Your task to perform on an android device: delete a single message in the gmail app Image 0: 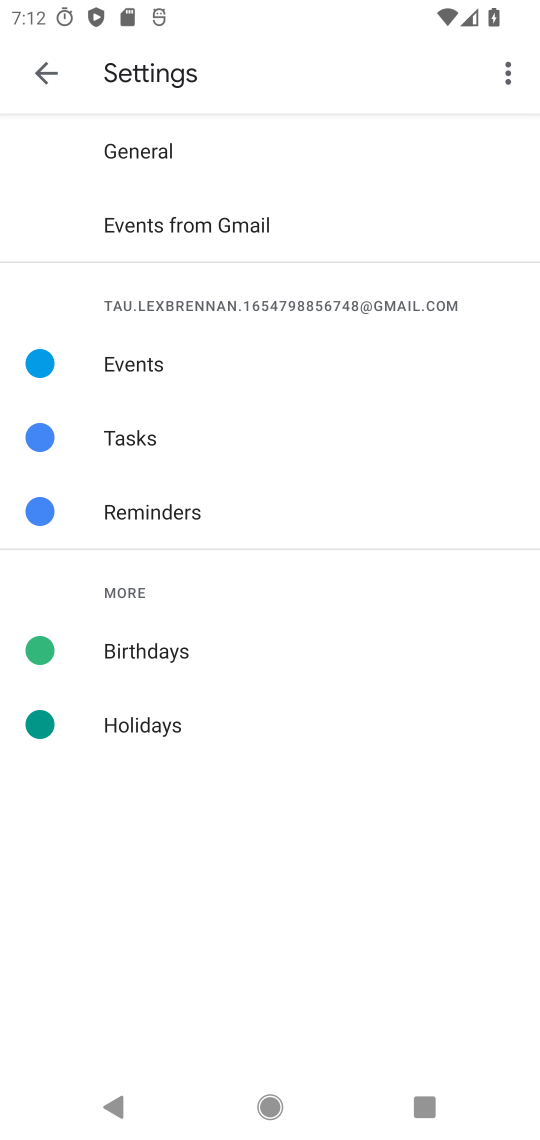
Step 0: click (46, 58)
Your task to perform on an android device: delete a single message in the gmail app Image 1: 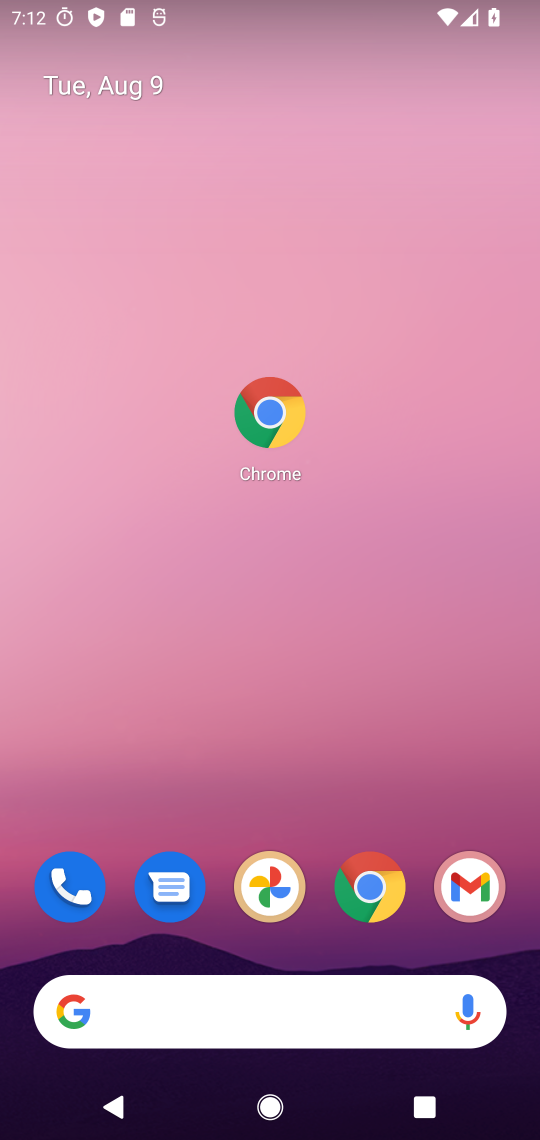
Step 1: drag from (265, 954) to (211, 560)
Your task to perform on an android device: delete a single message in the gmail app Image 2: 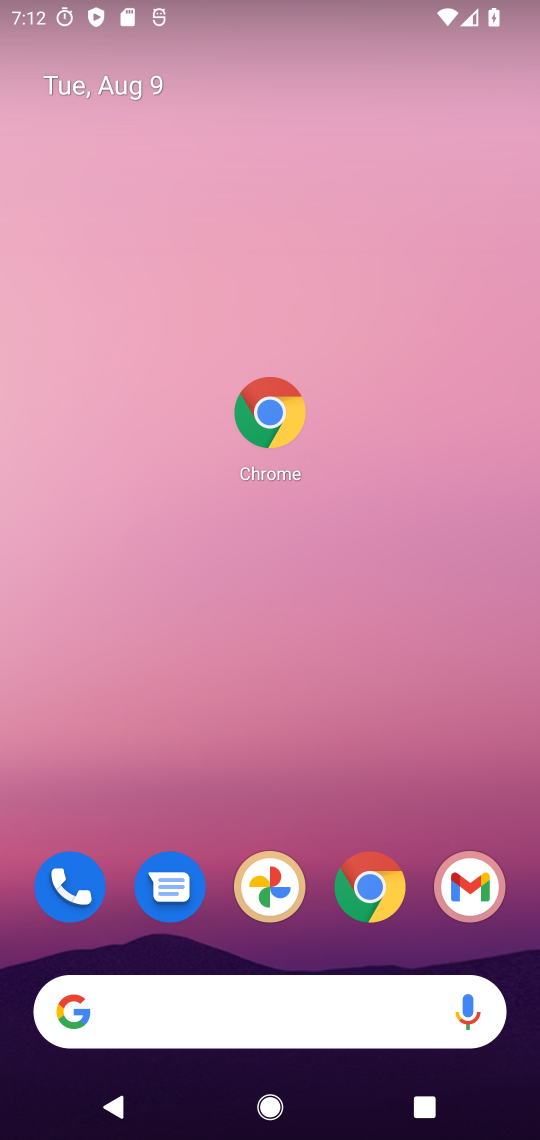
Step 2: drag from (286, 525) to (286, 433)
Your task to perform on an android device: delete a single message in the gmail app Image 3: 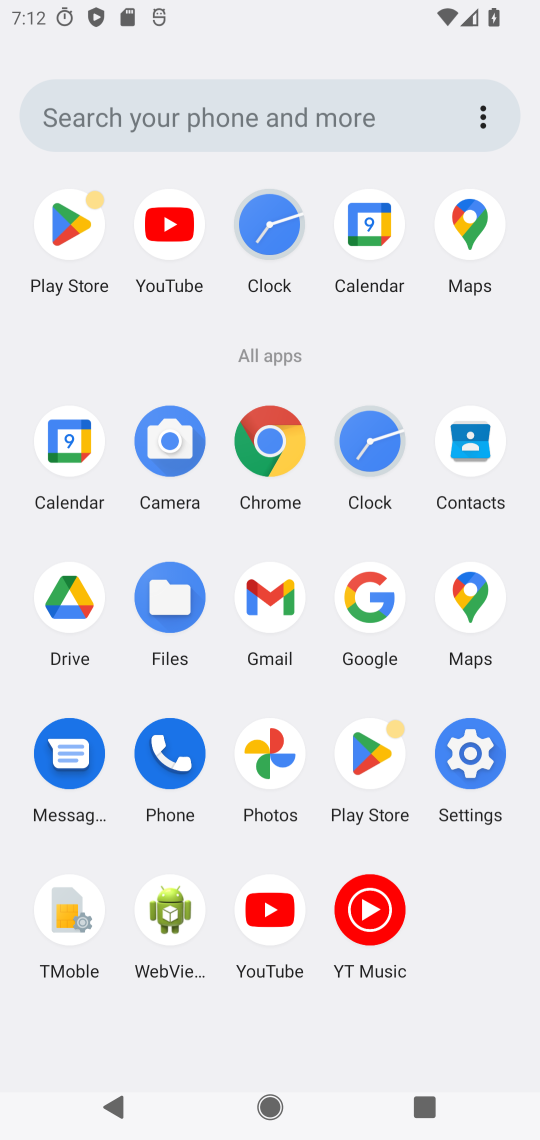
Step 3: drag from (320, 723) to (320, 361)
Your task to perform on an android device: delete a single message in the gmail app Image 4: 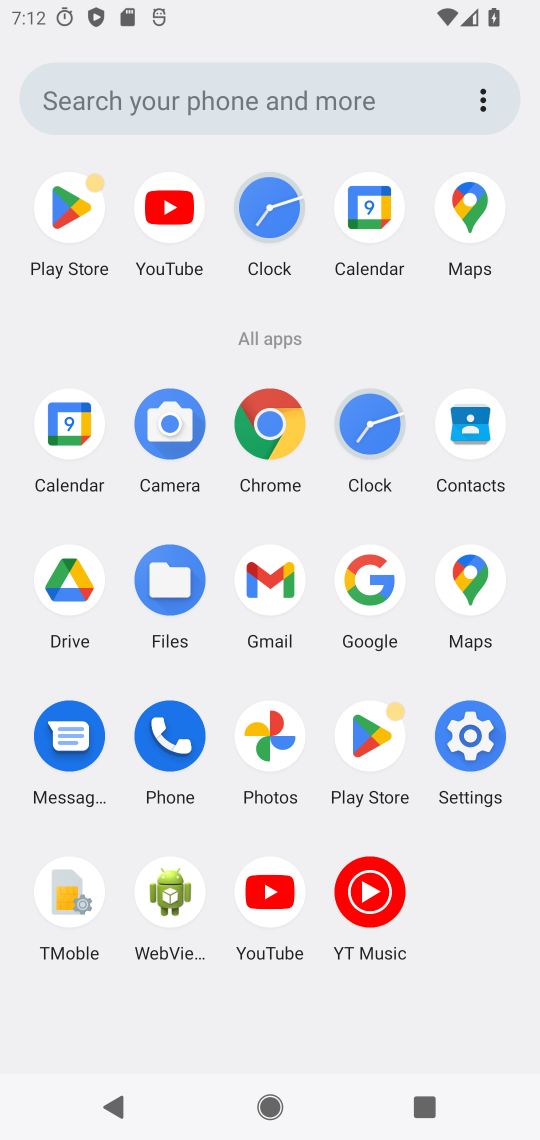
Step 4: click (273, 559)
Your task to perform on an android device: delete a single message in the gmail app Image 5: 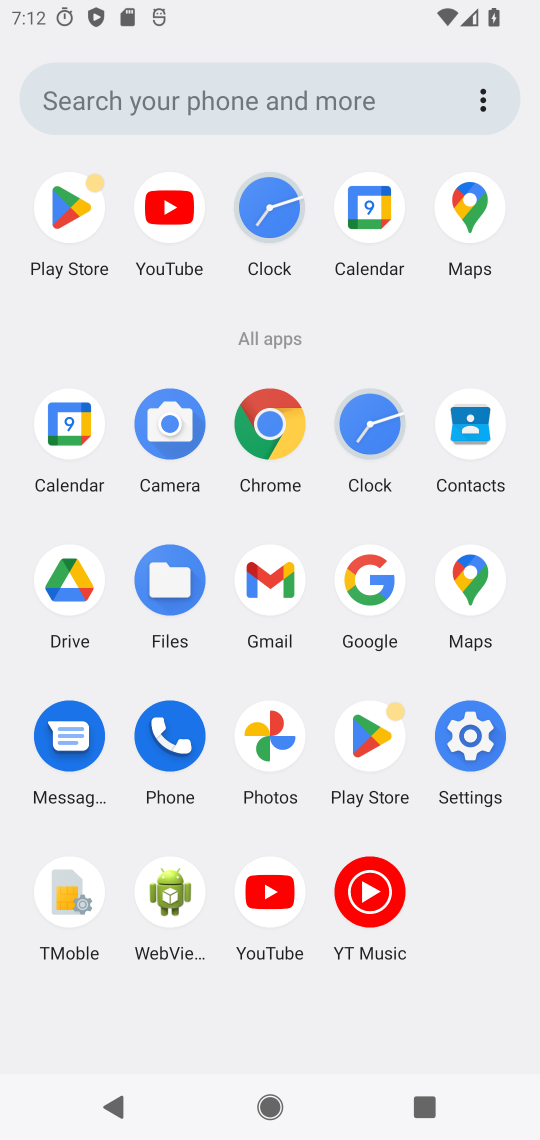
Step 5: click (271, 581)
Your task to perform on an android device: delete a single message in the gmail app Image 6: 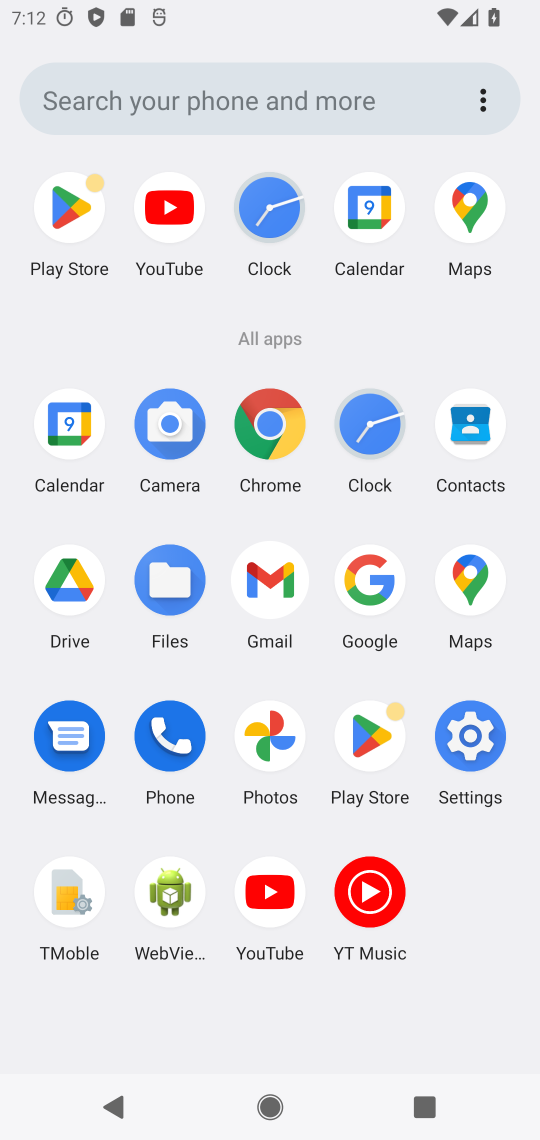
Step 6: click (273, 585)
Your task to perform on an android device: delete a single message in the gmail app Image 7: 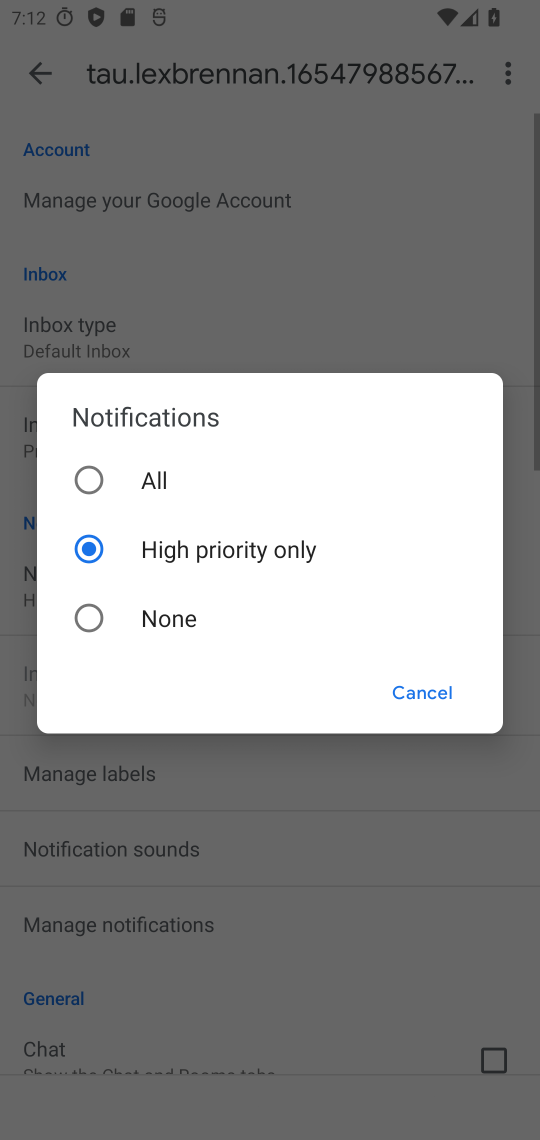
Step 7: click (273, 585)
Your task to perform on an android device: delete a single message in the gmail app Image 8: 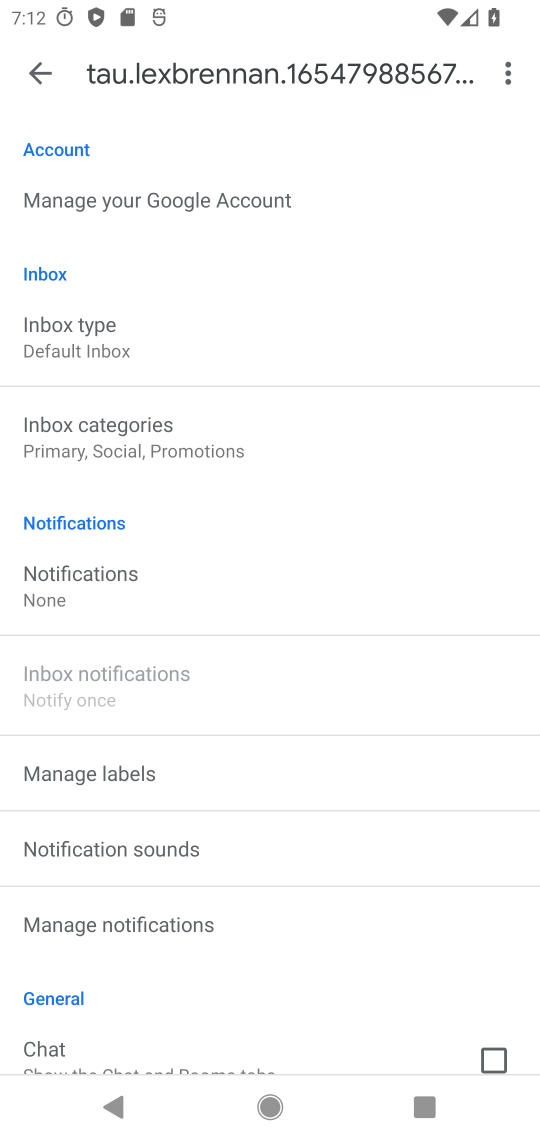
Step 8: click (21, 74)
Your task to perform on an android device: delete a single message in the gmail app Image 9: 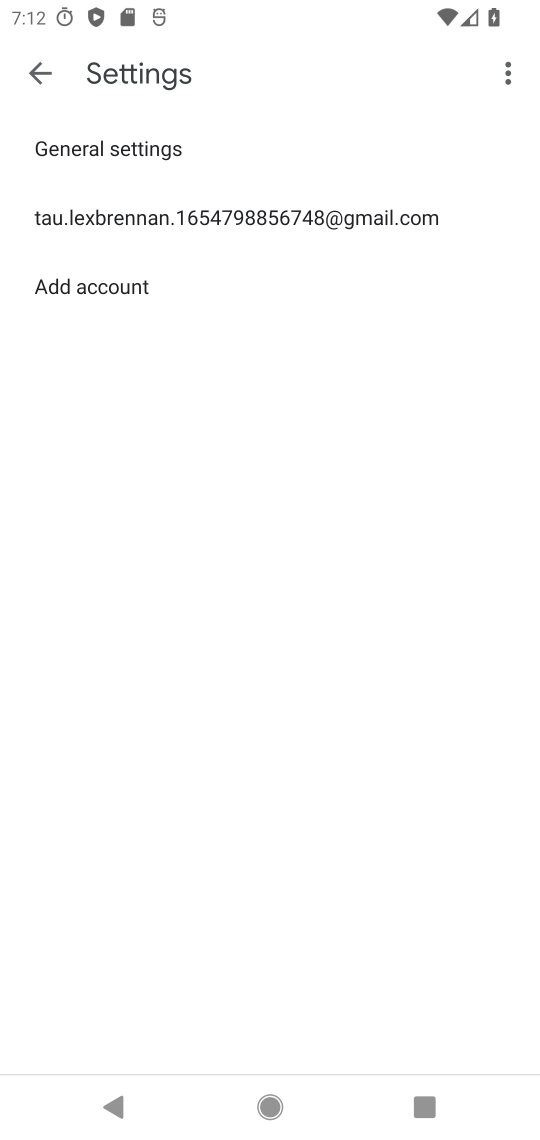
Step 9: click (159, 239)
Your task to perform on an android device: delete a single message in the gmail app Image 10: 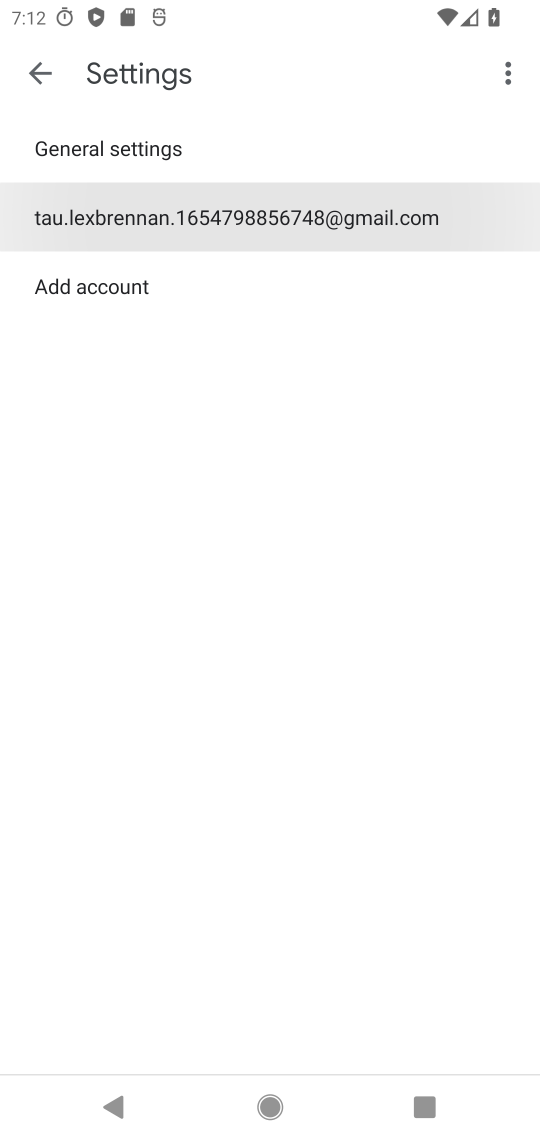
Step 10: click (166, 231)
Your task to perform on an android device: delete a single message in the gmail app Image 11: 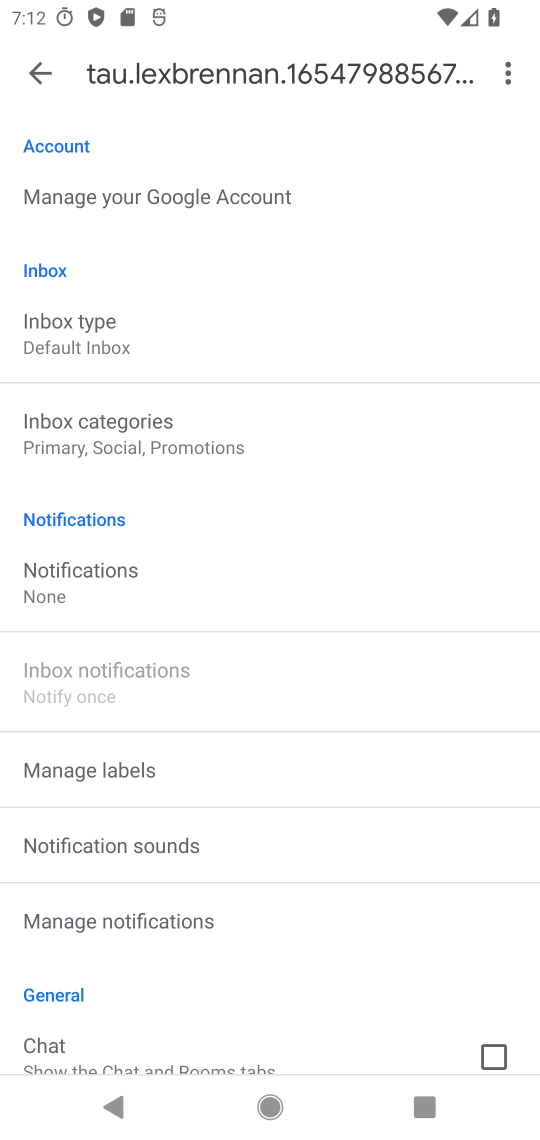
Step 11: click (35, 55)
Your task to perform on an android device: delete a single message in the gmail app Image 12: 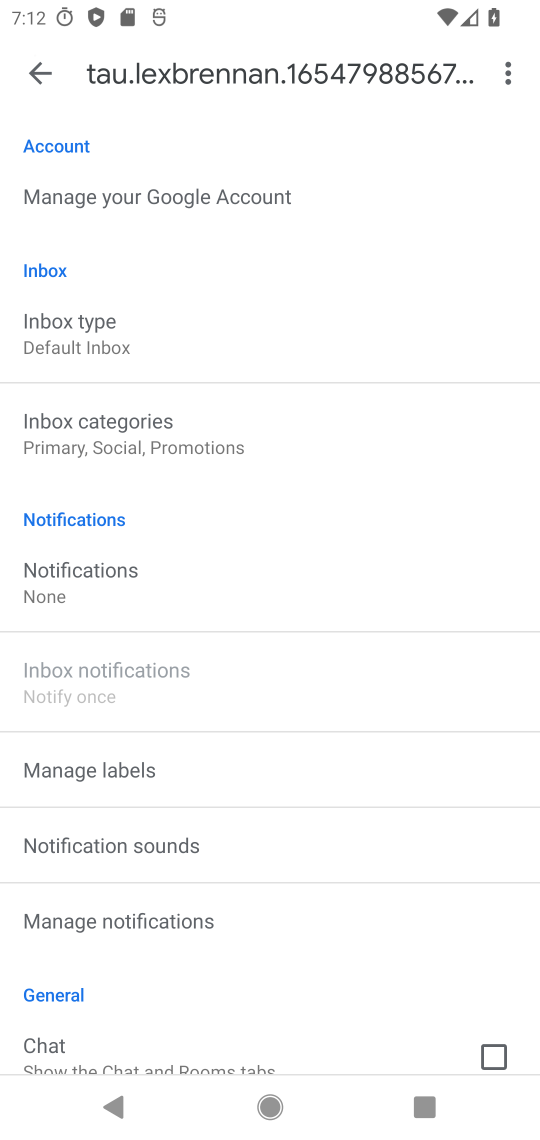
Step 12: click (33, 73)
Your task to perform on an android device: delete a single message in the gmail app Image 13: 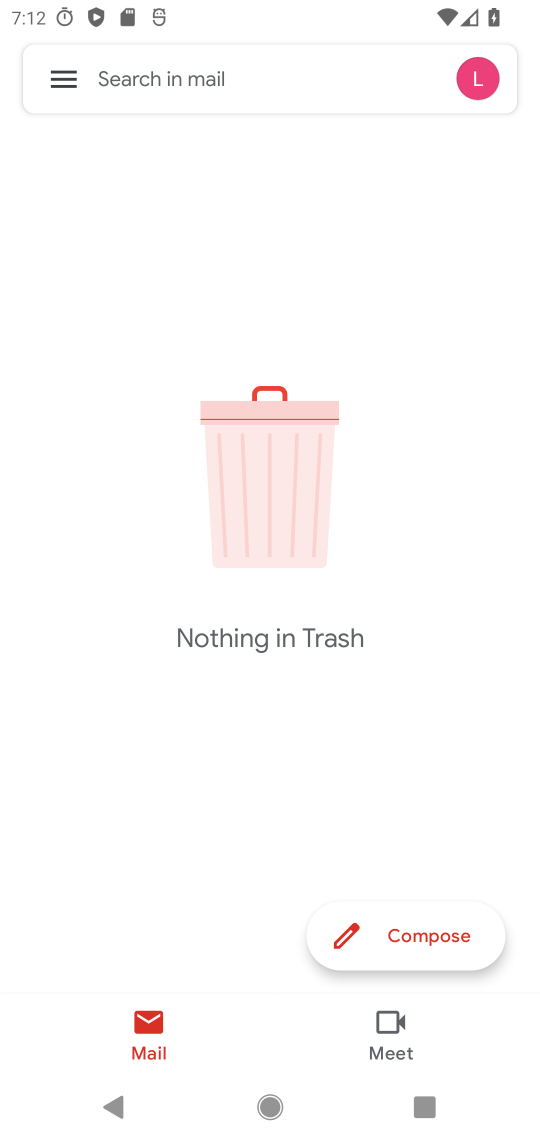
Step 13: click (37, 85)
Your task to perform on an android device: delete a single message in the gmail app Image 14: 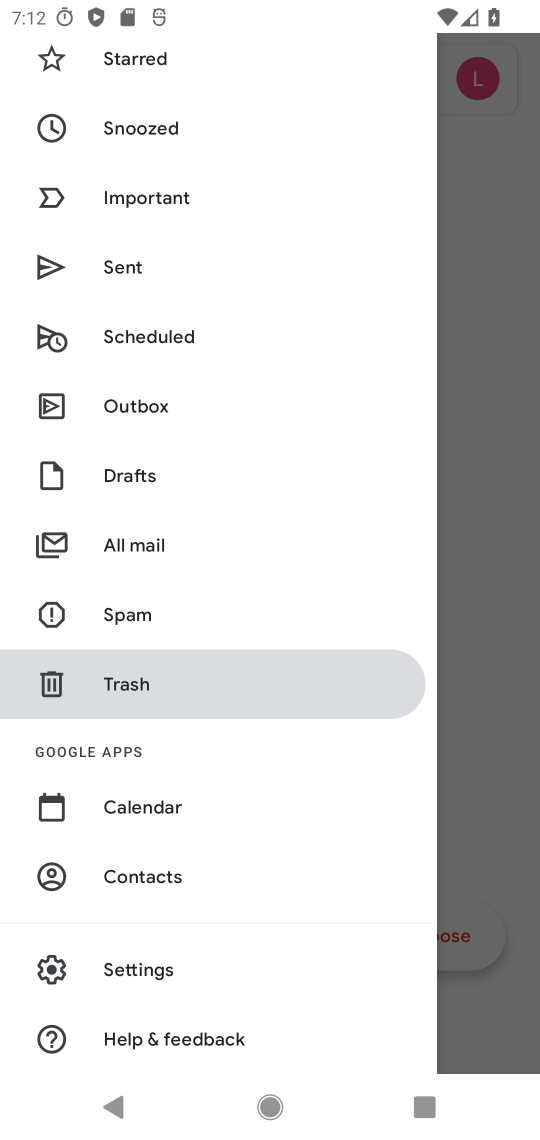
Step 14: click (137, 538)
Your task to perform on an android device: delete a single message in the gmail app Image 15: 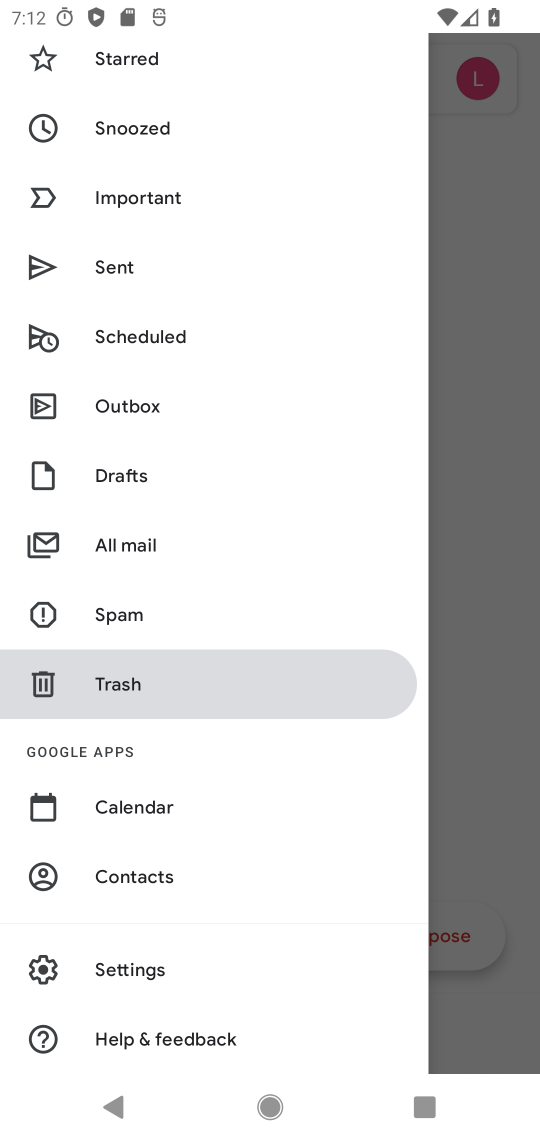
Step 15: click (137, 538)
Your task to perform on an android device: delete a single message in the gmail app Image 16: 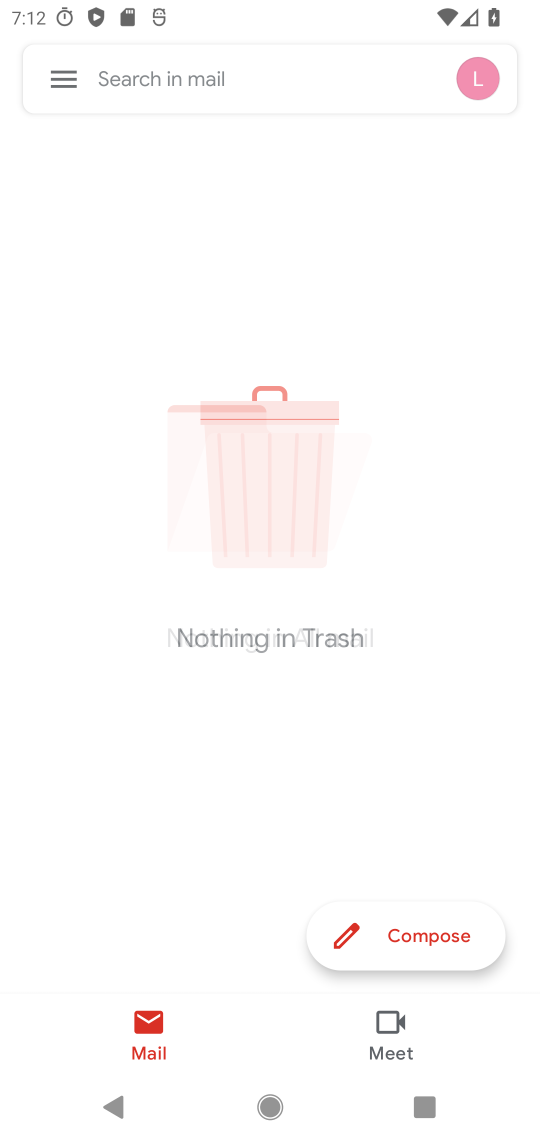
Step 16: click (141, 539)
Your task to perform on an android device: delete a single message in the gmail app Image 17: 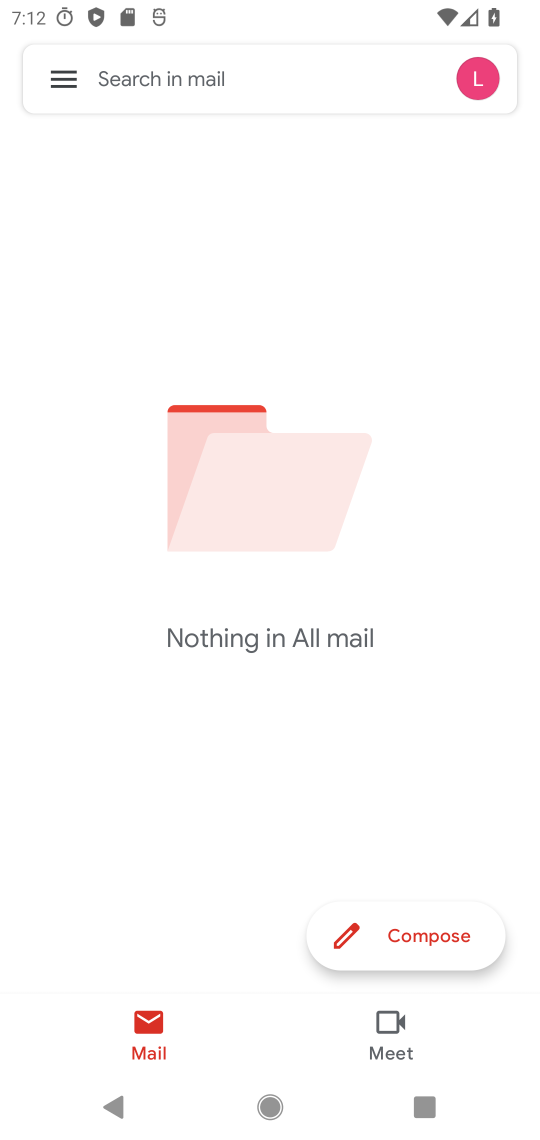
Step 17: click (73, 71)
Your task to perform on an android device: delete a single message in the gmail app Image 18: 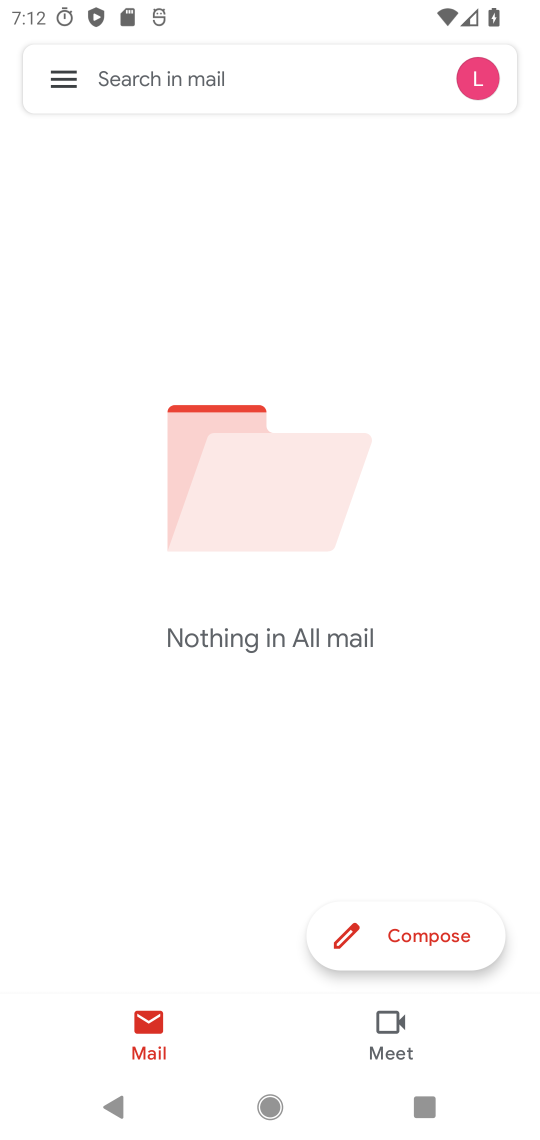
Step 18: click (74, 72)
Your task to perform on an android device: delete a single message in the gmail app Image 19: 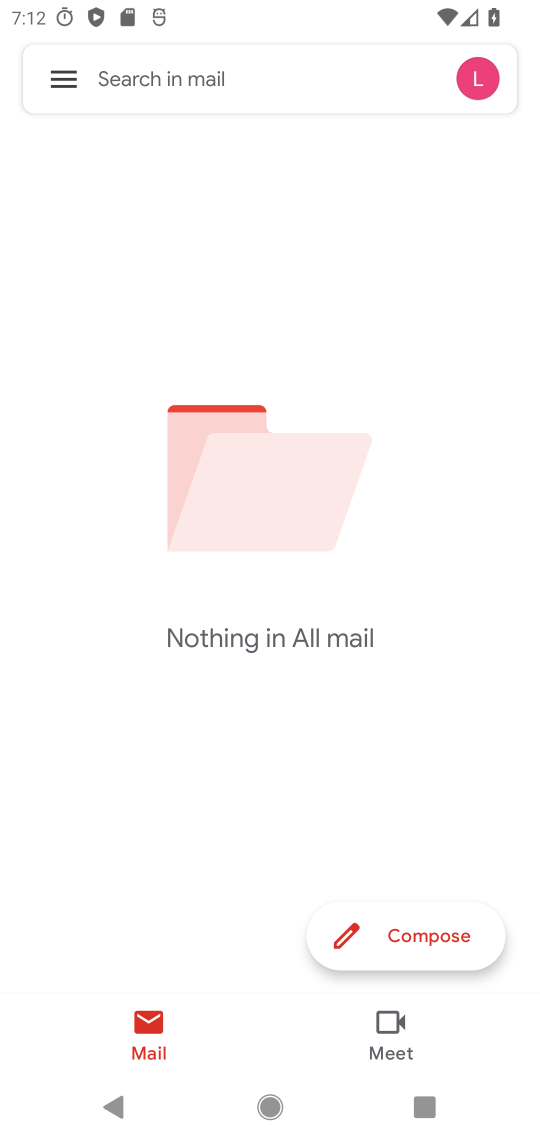
Step 19: drag from (78, 79) to (209, 676)
Your task to perform on an android device: delete a single message in the gmail app Image 20: 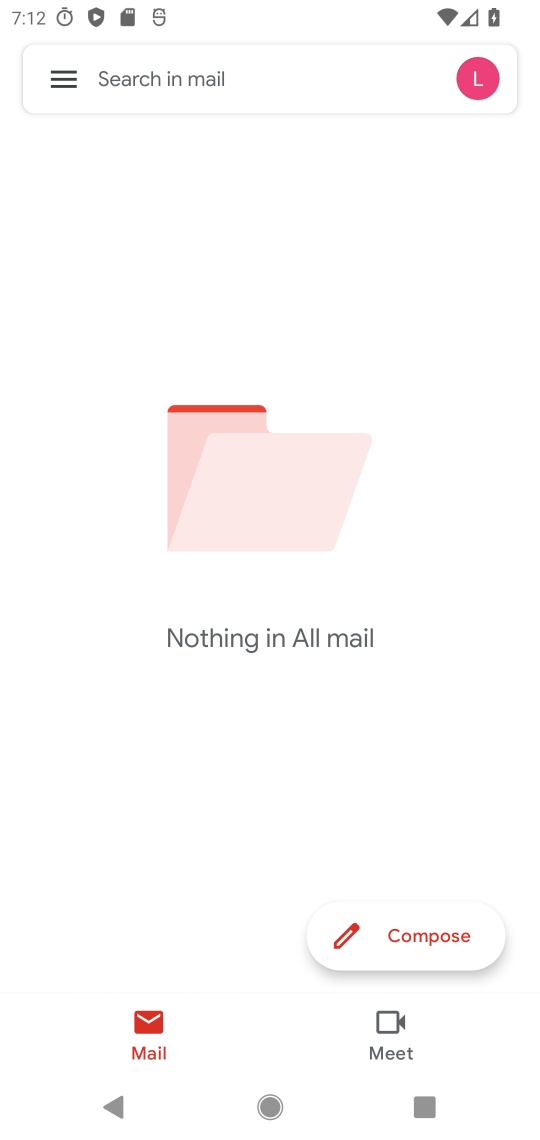
Step 20: drag from (54, 80) to (106, 457)
Your task to perform on an android device: delete a single message in the gmail app Image 21: 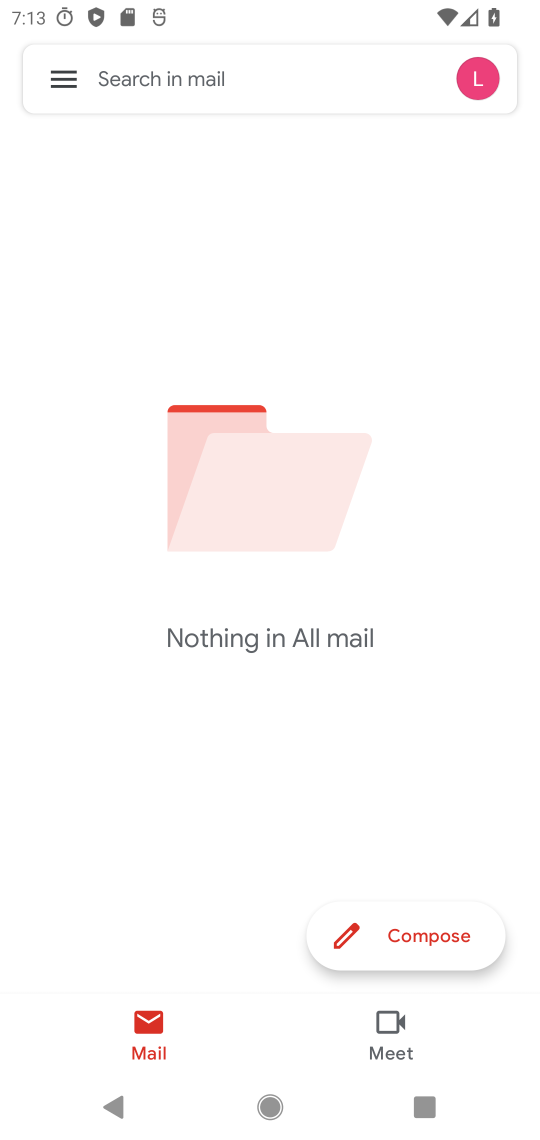
Step 21: click (55, 78)
Your task to perform on an android device: delete a single message in the gmail app Image 22: 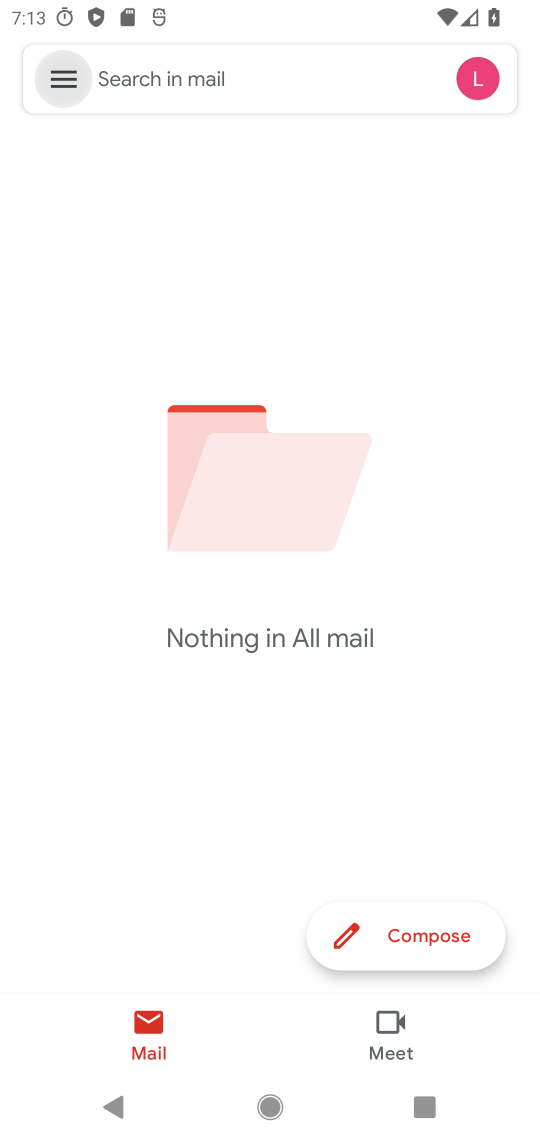
Step 22: drag from (65, 87) to (113, 396)
Your task to perform on an android device: delete a single message in the gmail app Image 23: 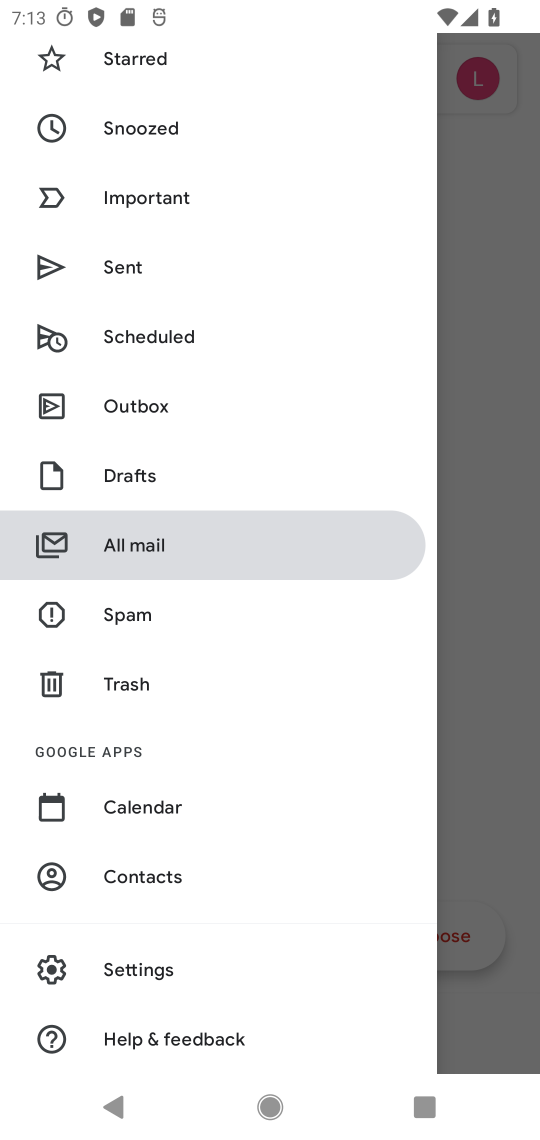
Step 23: click (123, 519)
Your task to perform on an android device: delete a single message in the gmail app Image 24: 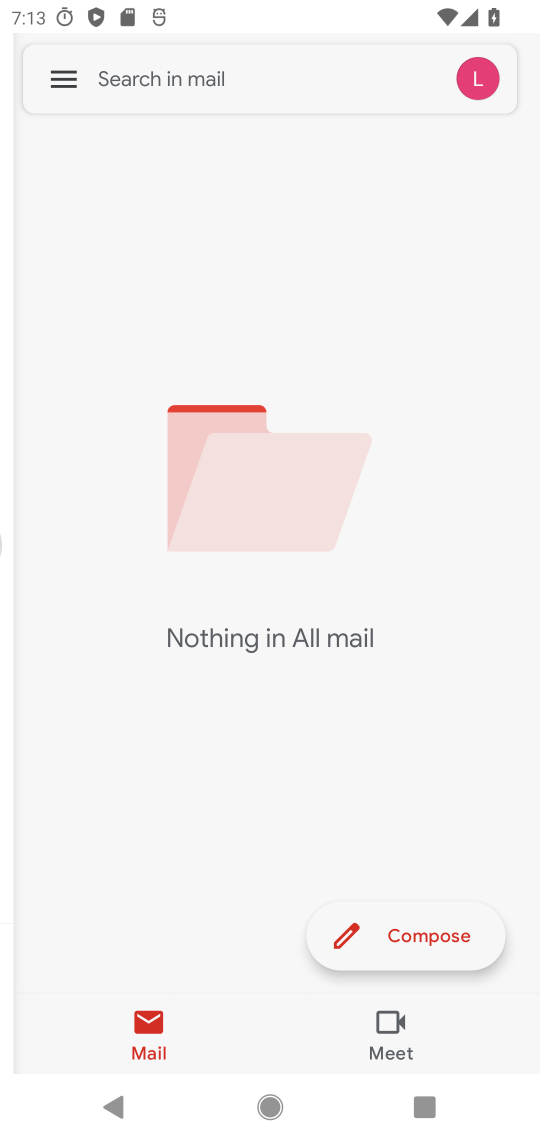
Step 24: task complete